Your task to perform on an android device: turn off javascript in the chrome app Image 0: 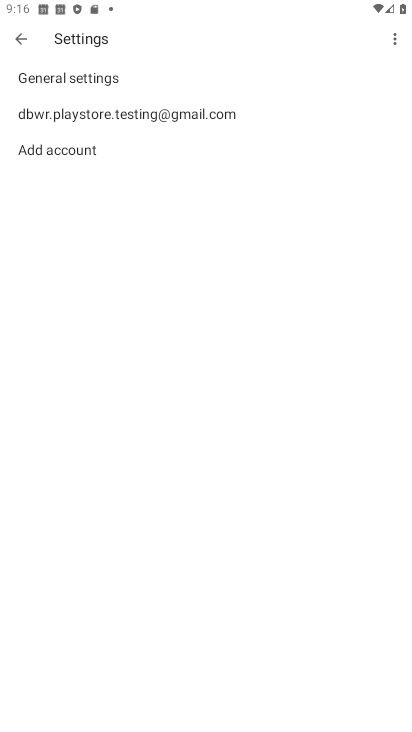
Step 0: drag from (304, 541) to (262, 174)
Your task to perform on an android device: turn off javascript in the chrome app Image 1: 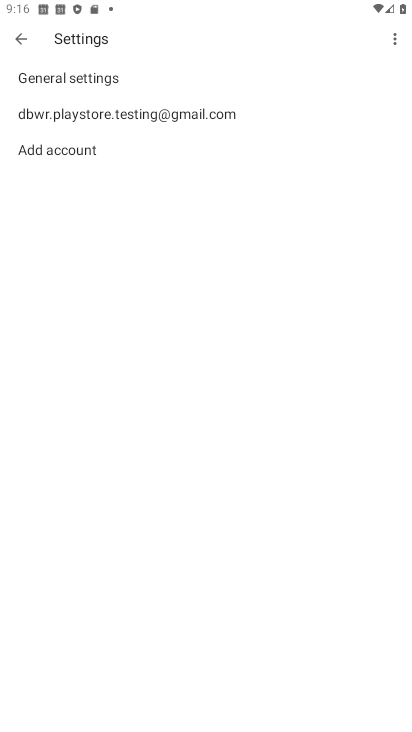
Step 1: press home button
Your task to perform on an android device: turn off javascript in the chrome app Image 2: 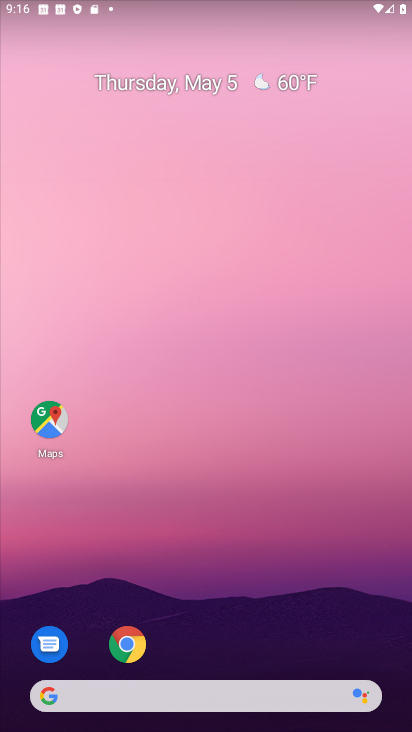
Step 2: click (120, 637)
Your task to perform on an android device: turn off javascript in the chrome app Image 3: 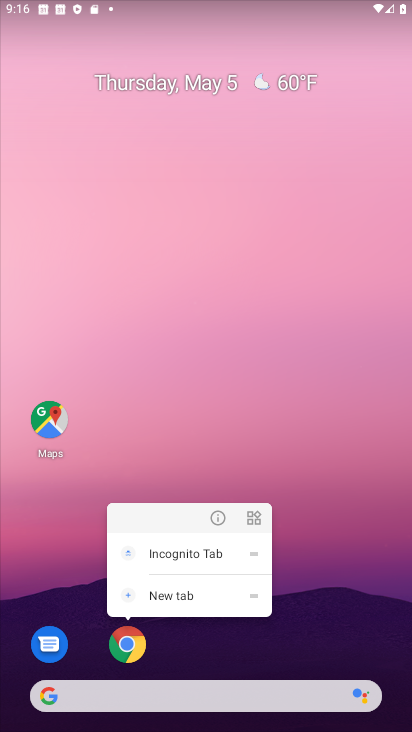
Step 3: click (361, 554)
Your task to perform on an android device: turn off javascript in the chrome app Image 4: 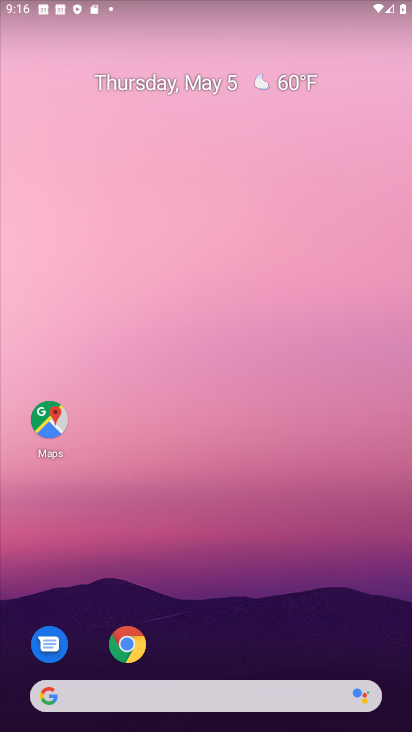
Step 4: drag from (214, 644) to (180, 451)
Your task to perform on an android device: turn off javascript in the chrome app Image 5: 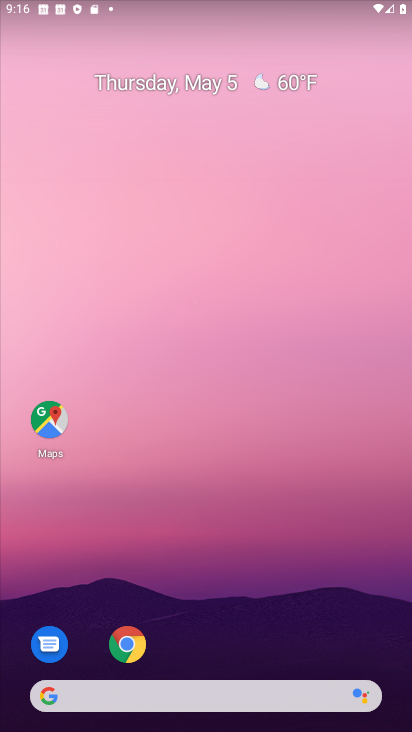
Step 5: click (144, 647)
Your task to perform on an android device: turn off javascript in the chrome app Image 6: 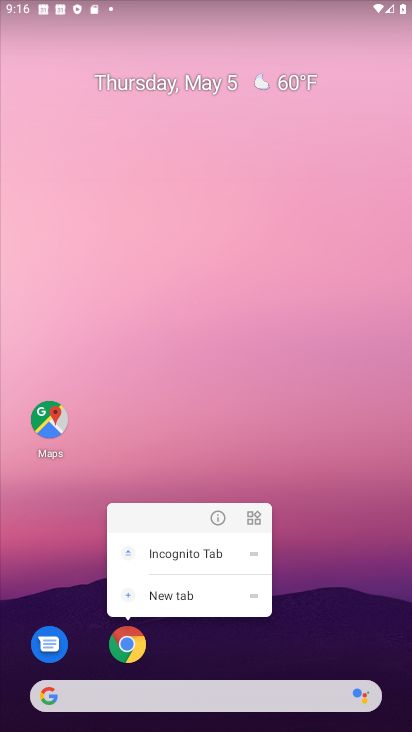
Step 6: click (215, 523)
Your task to perform on an android device: turn off javascript in the chrome app Image 7: 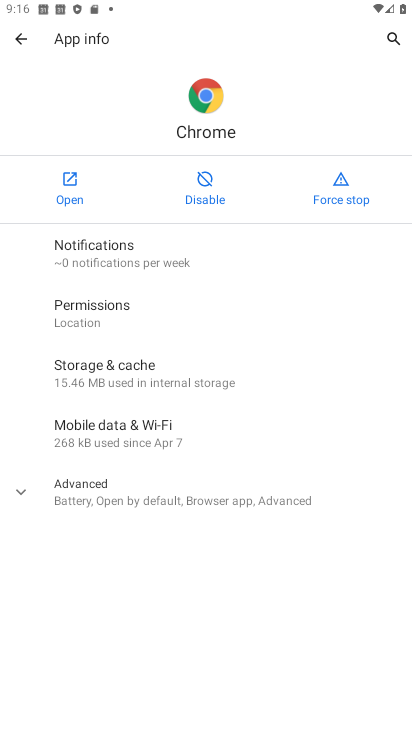
Step 7: click (68, 176)
Your task to perform on an android device: turn off javascript in the chrome app Image 8: 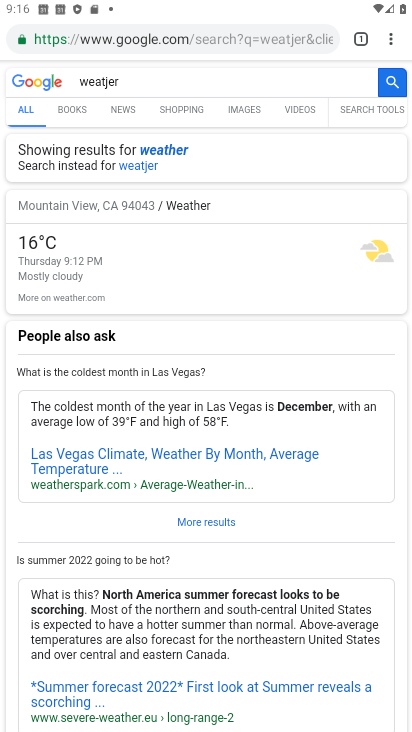
Step 8: click (390, 34)
Your task to perform on an android device: turn off javascript in the chrome app Image 9: 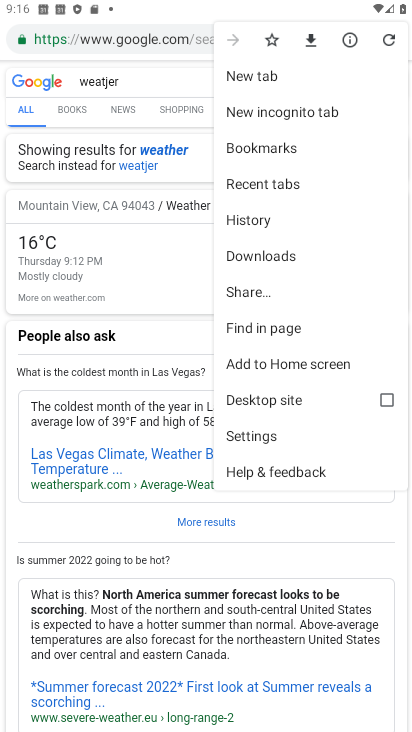
Step 9: click (267, 438)
Your task to perform on an android device: turn off javascript in the chrome app Image 10: 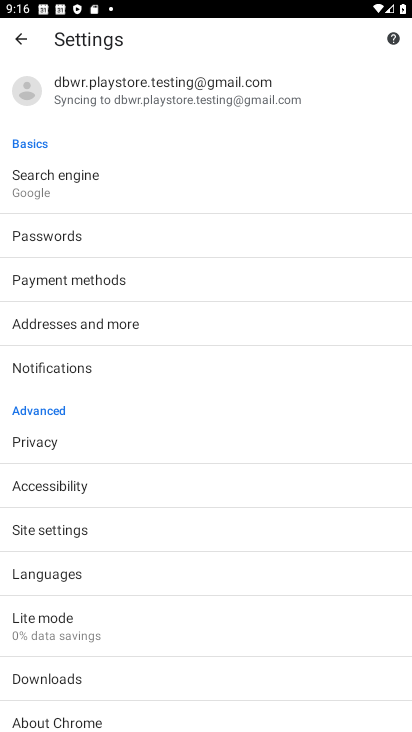
Step 10: click (82, 532)
Your task to perform on an android device: turn off javascript in the chrome app Image 11: 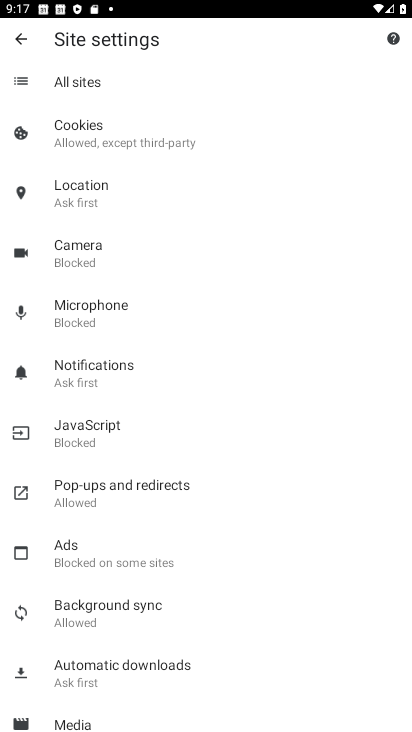
Step 11: click (100, 435)
Your task to perform on an android device: turn off javascript in the chrome app Image 12: 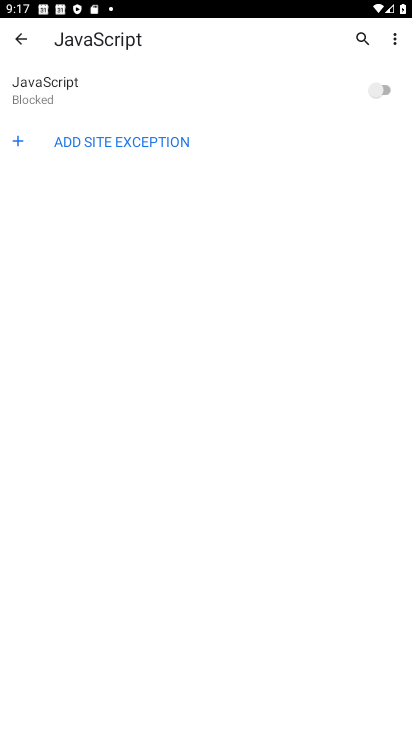
Step 12: task complete